Your task to perform on an android device: What's the latest news in space science? Image 0: 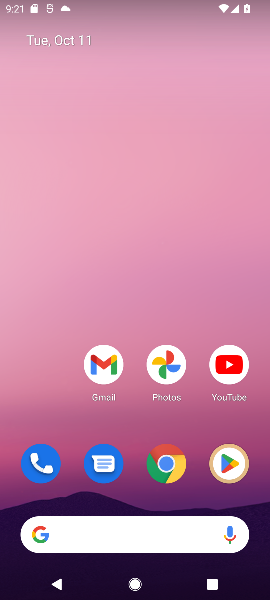
Step 0: drag from (132, 525) to (132, 240)
Your task to perform on an android device: What's the latest news in space science? Image 1: 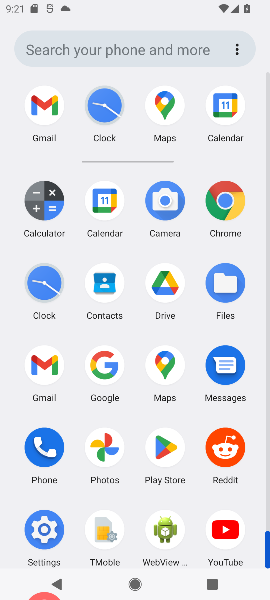
Step 1: click (109, 356)
Your task to perform on an android device: What's the latest news in space science? Image 2: 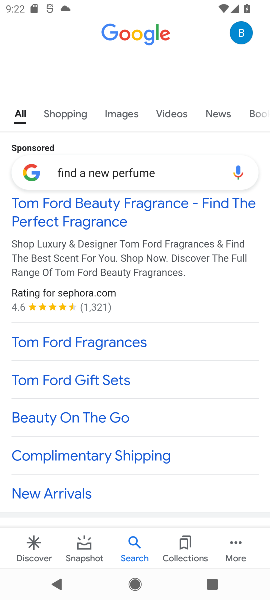
Step 2: click (119, 174)
Your task to perform on an android device: What's the latest news in space science? Image 3: 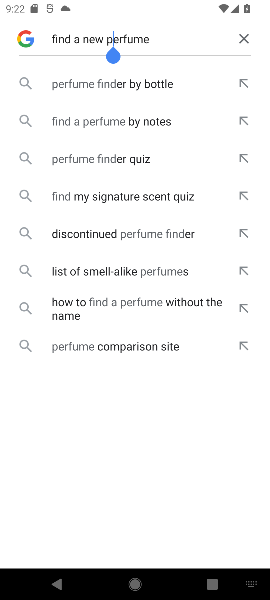
Step 3: click (240, 38)
Your task to perform on an android device: What's the latest news in space science? Image 4: 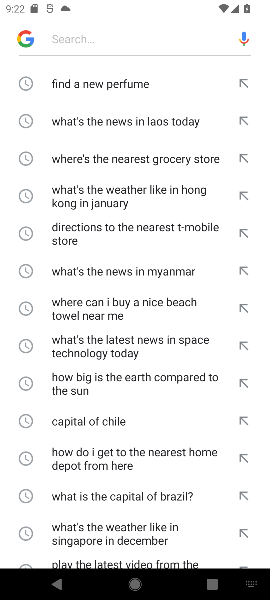
Step 4: click (84, 38)
Your task to perform on an android device: What's the latest news in space science? Image 5: 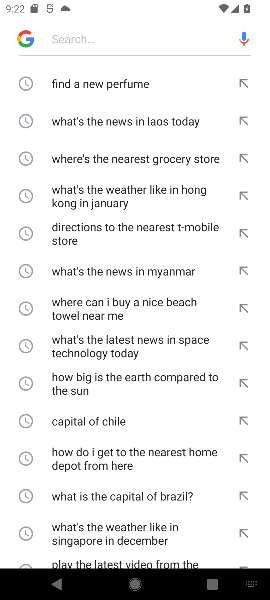
Step 5: type "What's the latest news in space science? "
Your task to perform on an android device: What's the latest news in space science? Image 6: 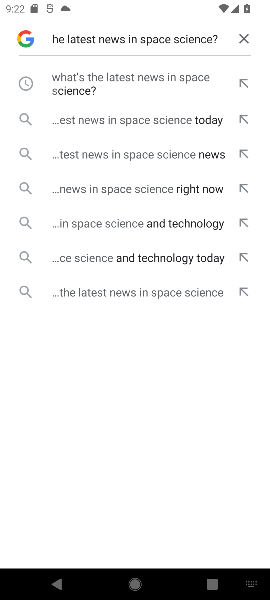
Step 6: click (121, 85)
Your task to perform on an android device: What's the latest news in space science? Image 7: 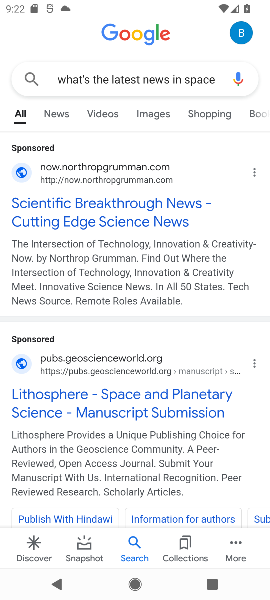
Step 7: click (98, 216)
Your task to perform on an android device: What's the latest news in space science? Image 8: 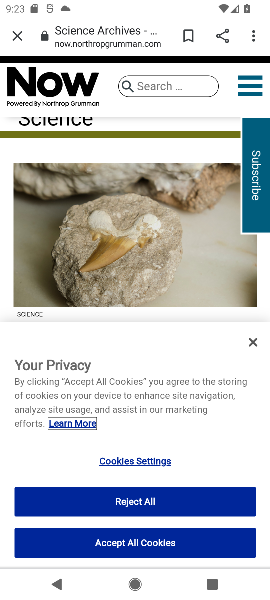
Step 8: task complete